Your task to perform on an android device: Go to location settings Image 0: 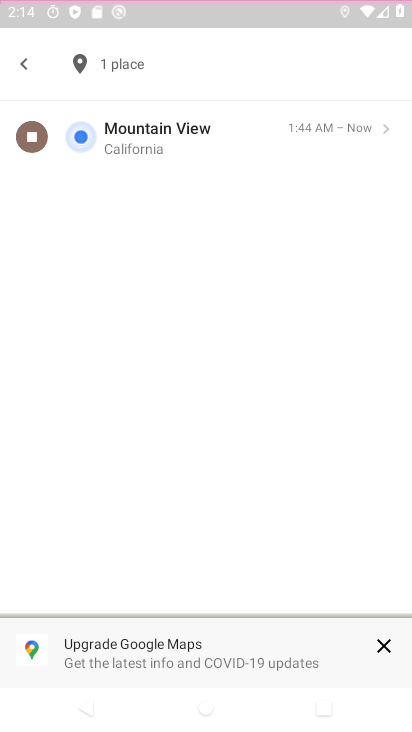
Step 0: drag from (223, 634) to (303, 142)
Your task to perform on an android device: Go to location settings Image 1: 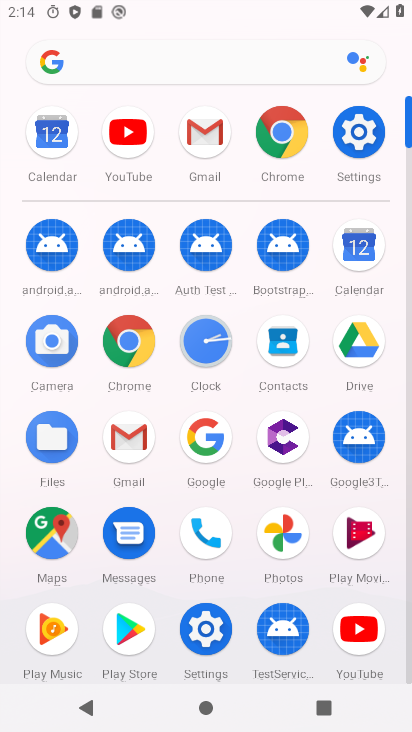
Step 1: click (358, 145)
Your task to perform on an android device: Go to location settings Image 2: 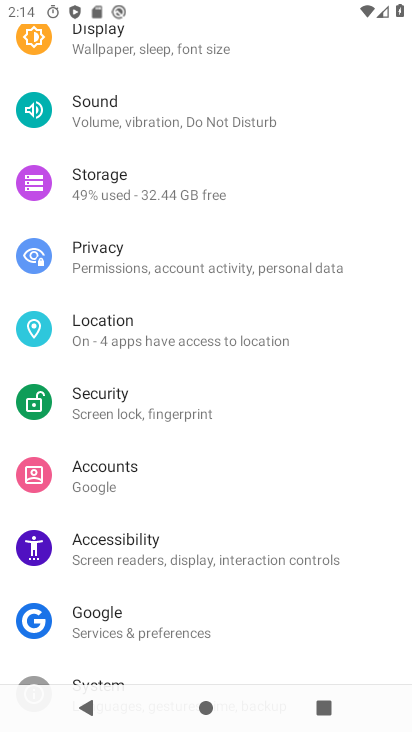
Step 2: drag from (137, 88) to (102, 523)
Your task to perform on an android device: Go to location settings Image 3: 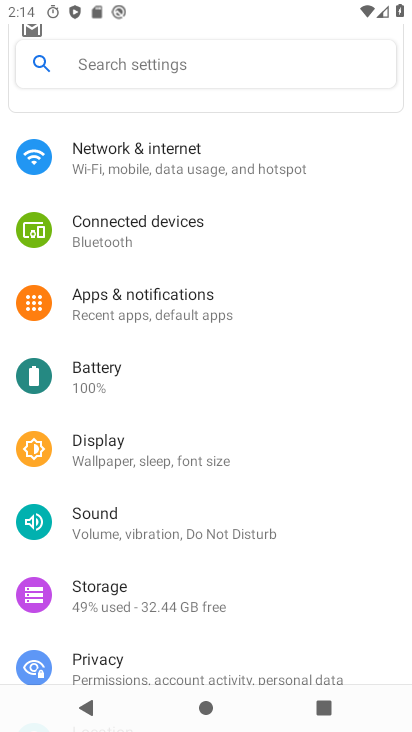
Step 3: drag from (114, 661) to (203, 285)
Your task to perform on an android device: Go to location settings Image 4: 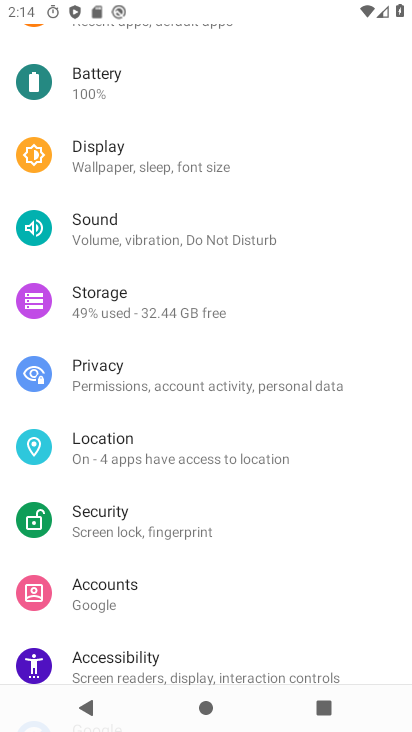
Step 4: click (151, 436)
Your task to perform on an android device: Go to location settings Image 5: 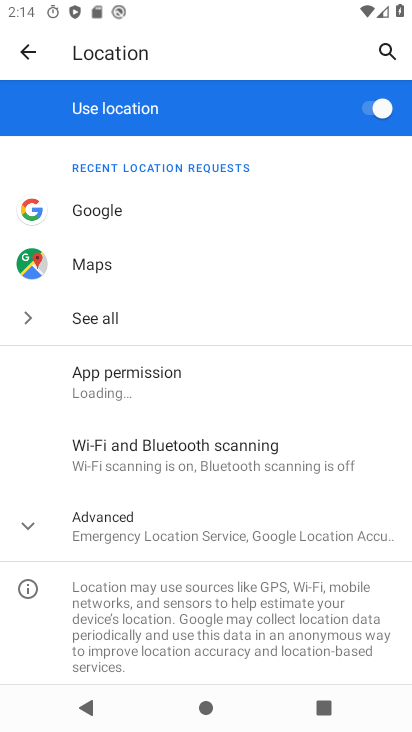
Step 5: click (156, 527)
Your task to perform on an android device: Go to location settings Image 6: 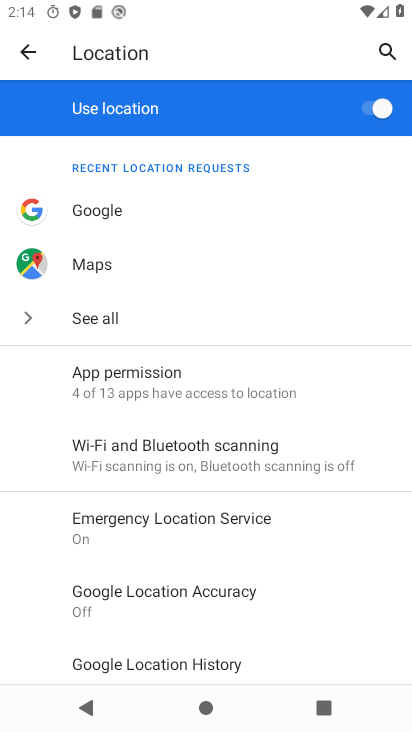
Step 6: task complete